Your task to perform on an android device: What is the recent news? Image 0: 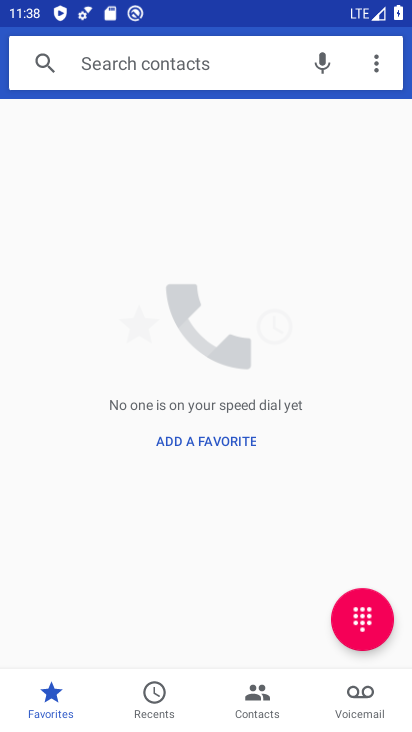
Step 0: press home button
Your task to perform on an android device: What is the recent news? Image 1: 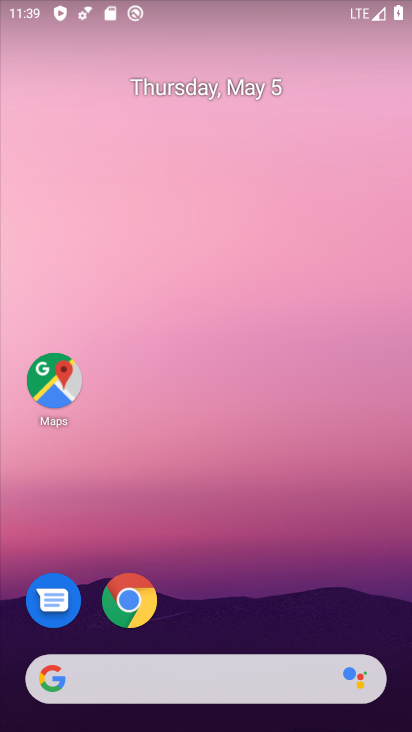
Step 1: drag from (277, 630) to (174, 106)
Your task to perform on an android device: What is the recent news? Image 2: 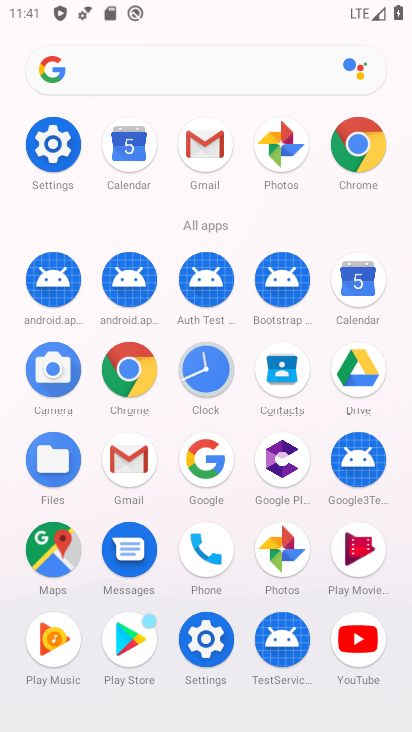
Step 2: click (112, 392)
Your task to perform on an android device: What is the recent news? Image 3: 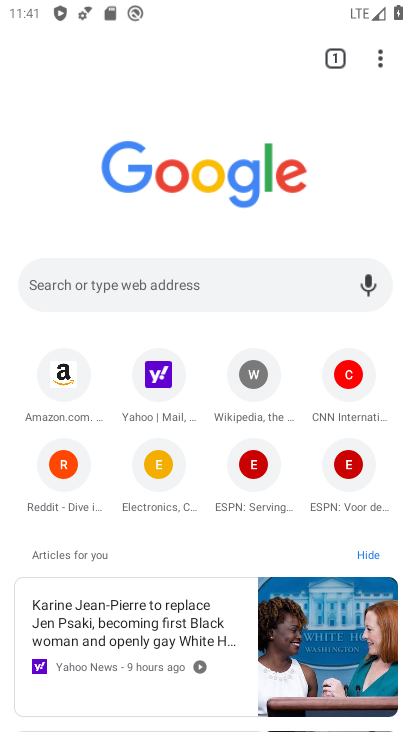
Step 3: click (152, 627)
Your task to perform on an android device: What is the recent news? Image 4: 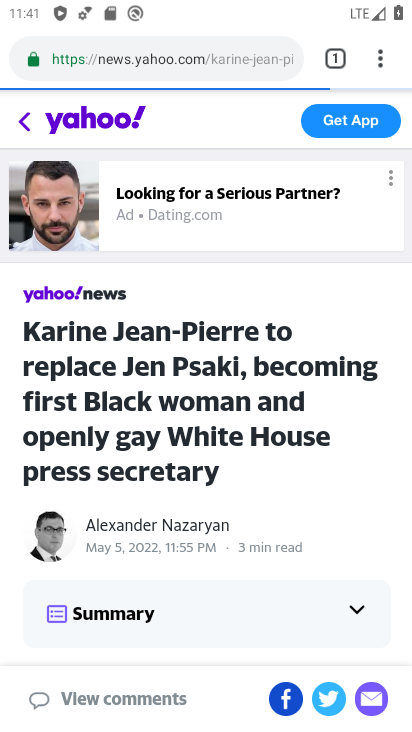
Step 4: task complete